Your task to perform on an android device: Open Android settings Image 0: 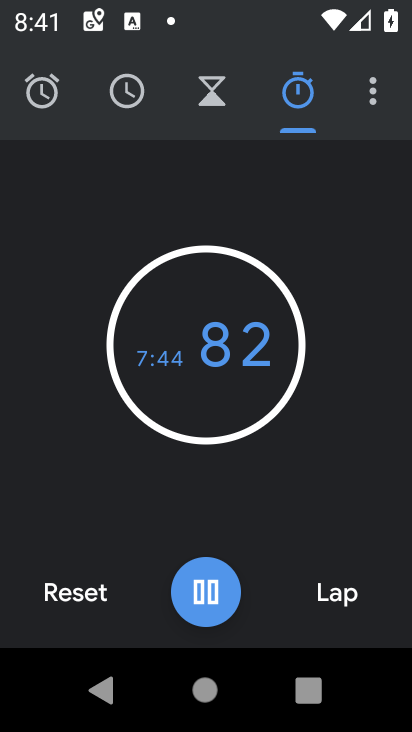
Step 0: press home button
Your task to perform on an android device: Open Android settings Image 1: 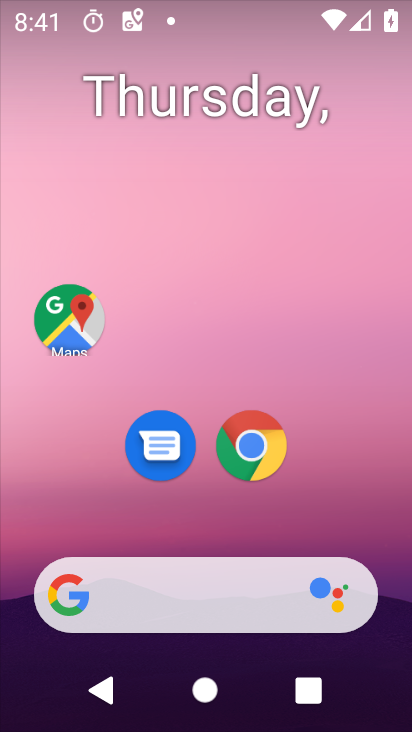
Step 1: click (232, 136)
Your task to perform on an android device: Open Android settings Image 2: 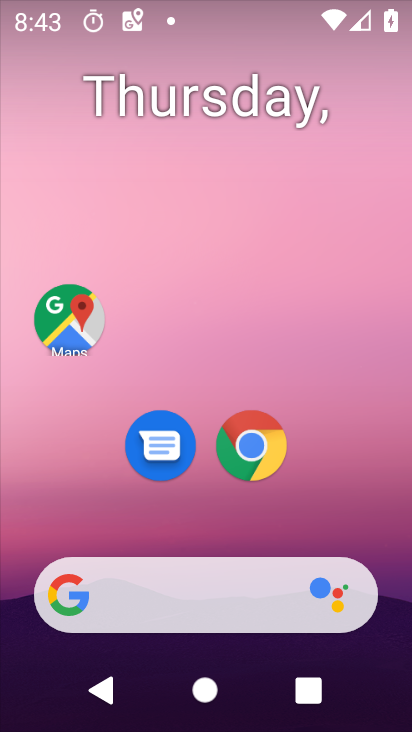
Step 2: drag from (32, 506) to (211, 222)
Your task to perform on an android device: Open Android settings Image 3: 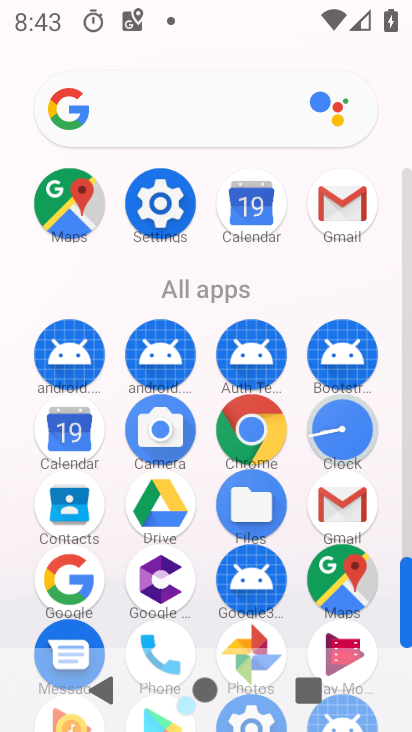
Step 3: click (181, 207)
Your task to perform on an android device: Open Android settings Image 4: 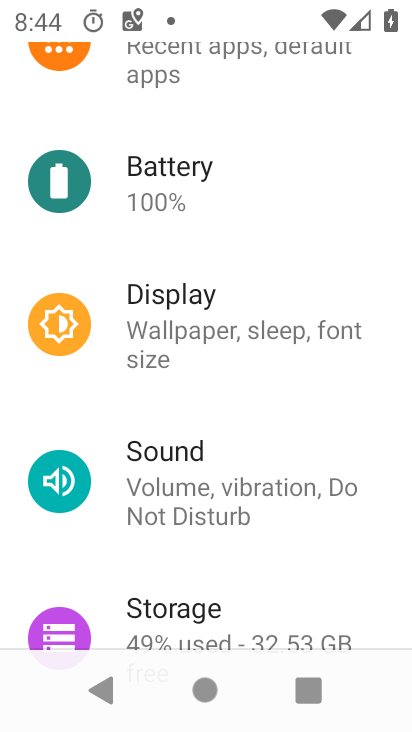
Step 4: click (181, 207)
Your task to perform on an android device: Open Android settings Image 5: 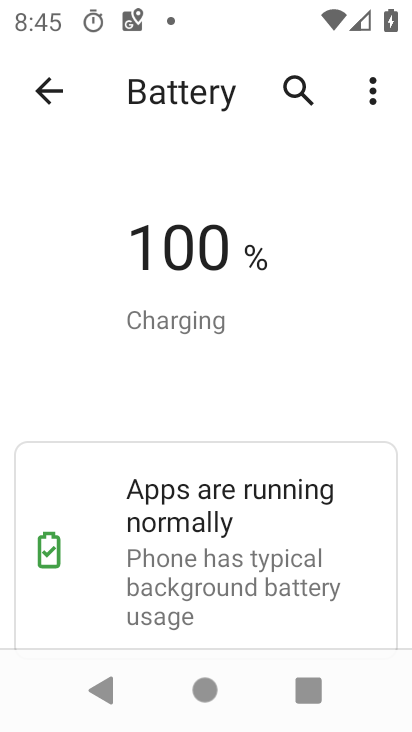
Step 5: task complete